Your task to perform on an android device: What's the weather going to be tomorrow? Image 0: 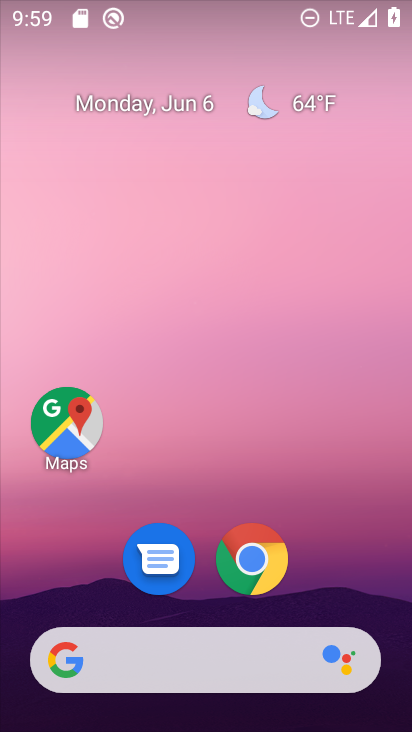
Step 0: drag from (238, 720) to (235, 146)
Your task to perform on an android device: What's the weather going to be tomorrow? Image 1: 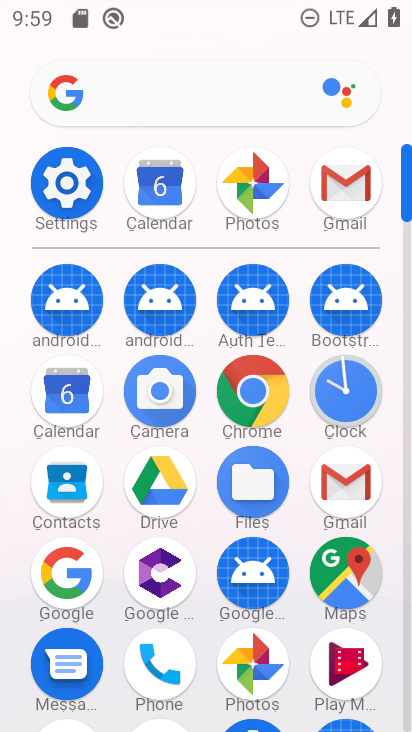
Step 1: click (71, 564)
Your task to perform on an android device: What's the weather going to be tomorrow? Image 2: 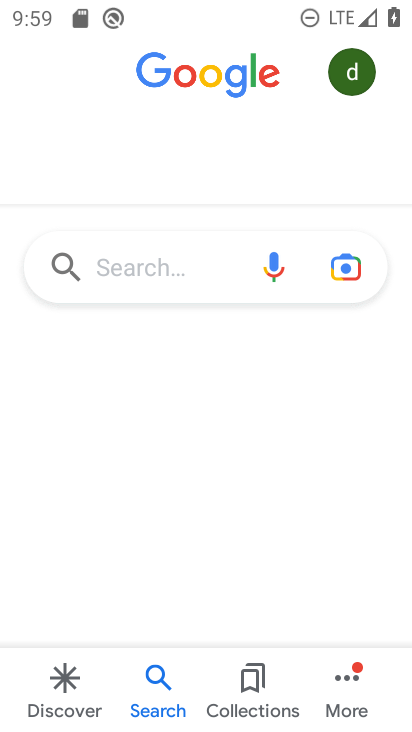
Step 2: click (157, 283)
Your task to perform on an android device: What's the weather going to be tomorrow? Image 3: 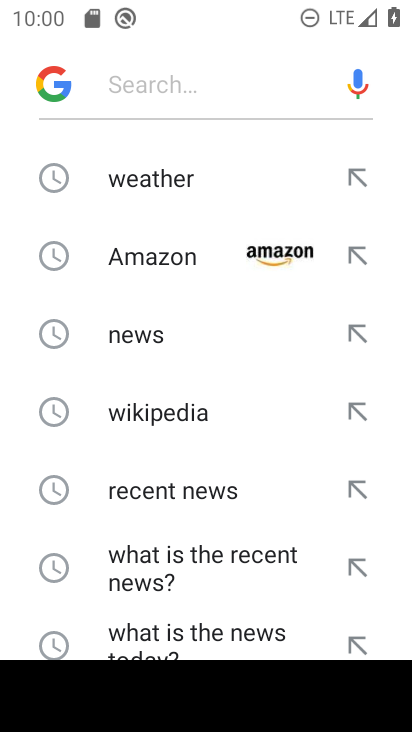
Step 3: click (135, 183)
Your task to perform on an android device: What's the weather going to be tomorrow? Image 4: 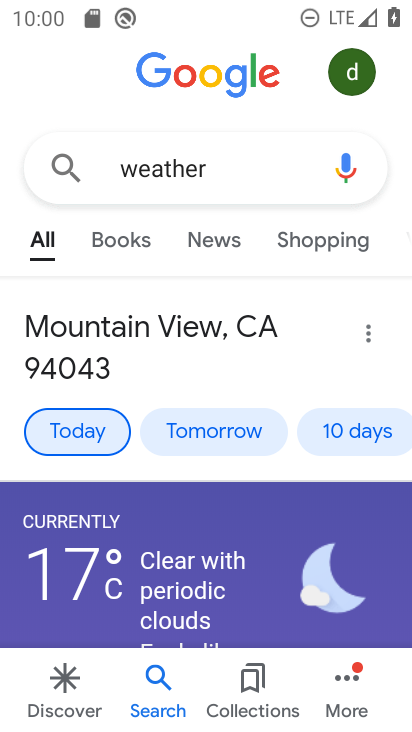
Step 4: click (194, 428)
Your task to perform on an android device: What's the weather going to be tomorrow? Image 5: 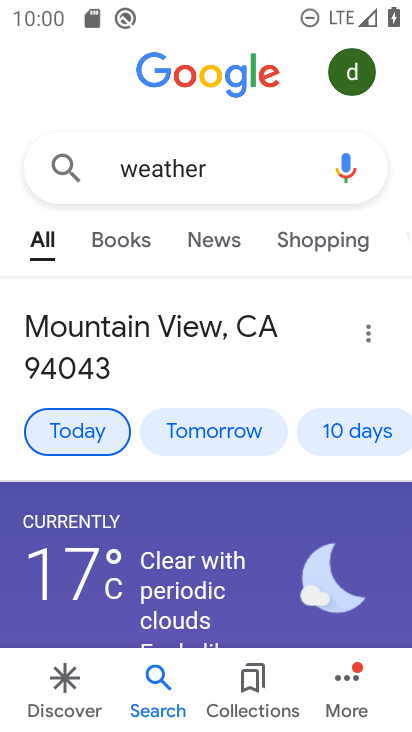
Step 5: click (194, 428)
Your task to perform on an android device: What's the weather going to be tomorrow? Image 6: 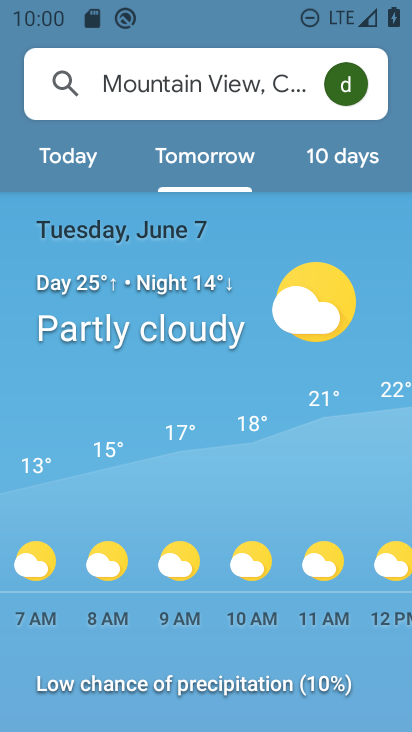
Step 6: task complete